Your task to perform on an android device: see creations saved in the google photos Image 0: 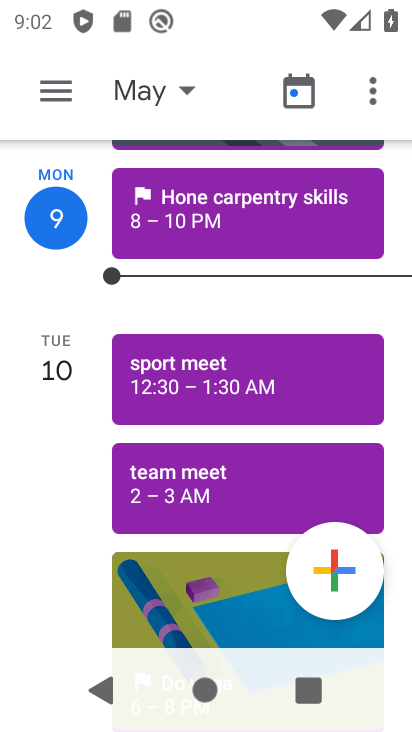
Step 0: press home button
Your task to perform on an android device: see creations saved in the google photos Image 1: 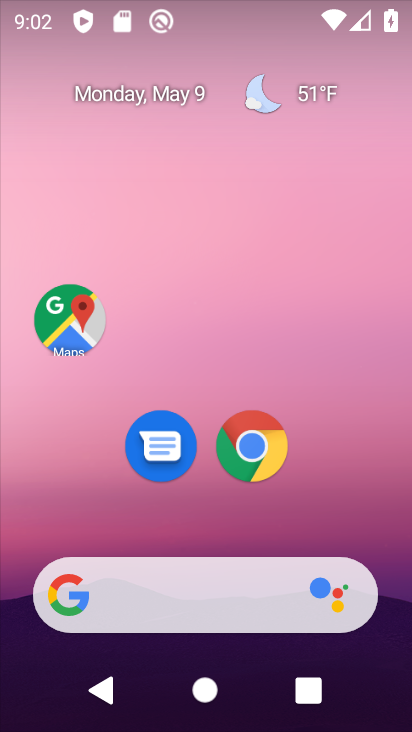
Step 1: drag from (288, 532) to (277, 0)
Your task to perform on an android device: see creations saved in the google photos Image 2: 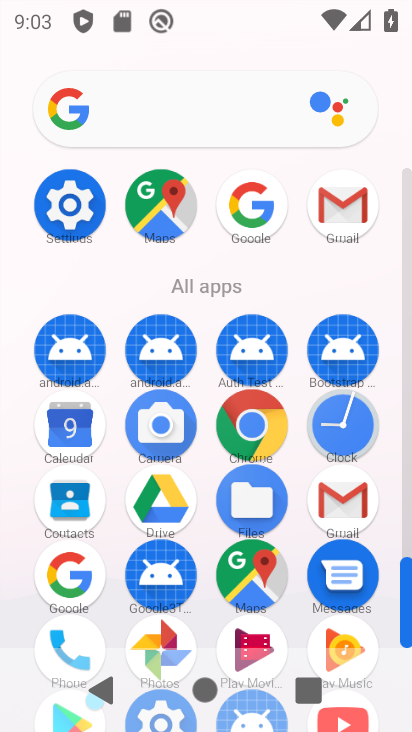
Step 2: click (169, 634)
Your task to perform on an android device: see creations saved in the google photos Image 3: 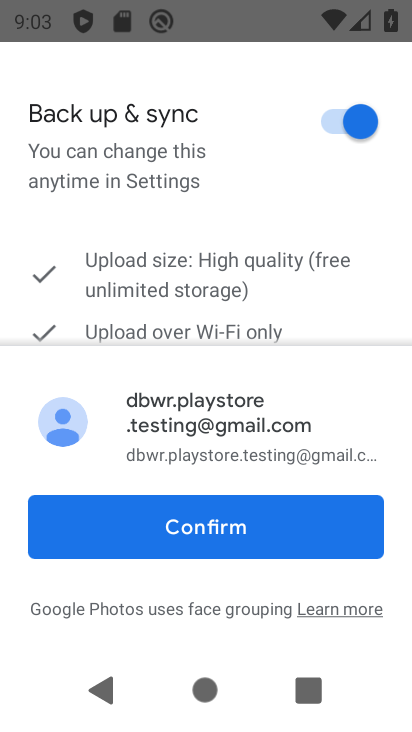
Step 3: click (213, 527)
Your task to perform on an android device: see creations saved in the google photos Image 4: 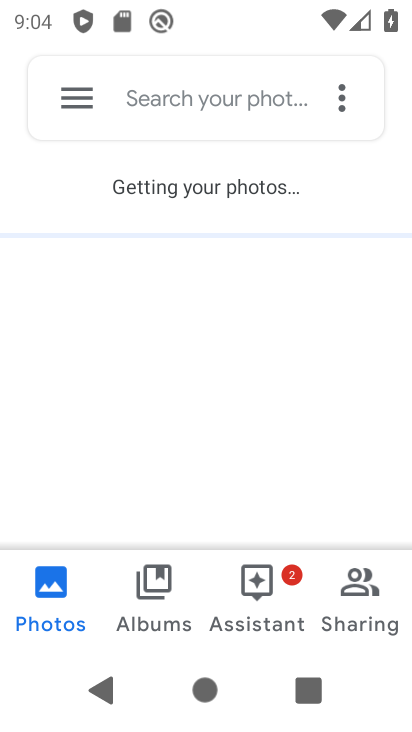
Step 4: click (80, 89)
Your task to perform on an android device: see creations saved in the google photos Image 5: 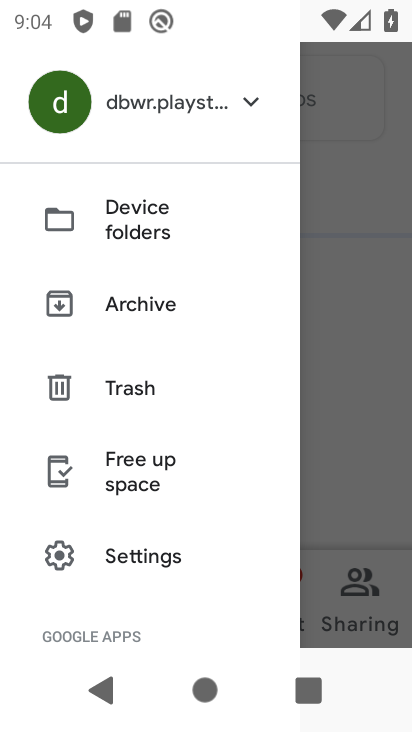
Step 5: click (369, 280)
Your task to perform on an android device: see creations saved in the google photos Image 6: 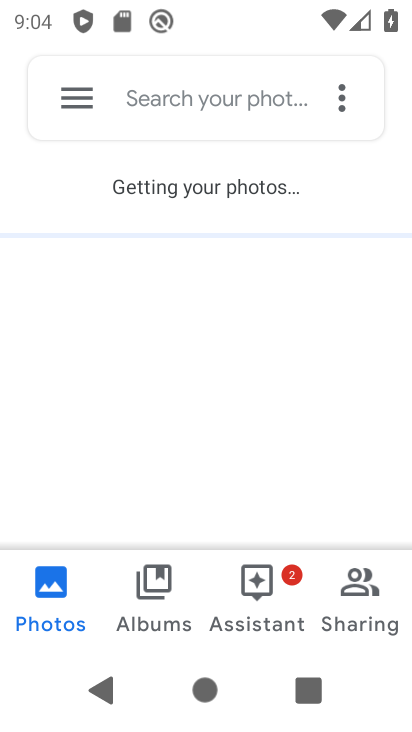
Step 6: click (200, 90)
Your task to perform on an android device: see creations saved in the google photos Image 7: 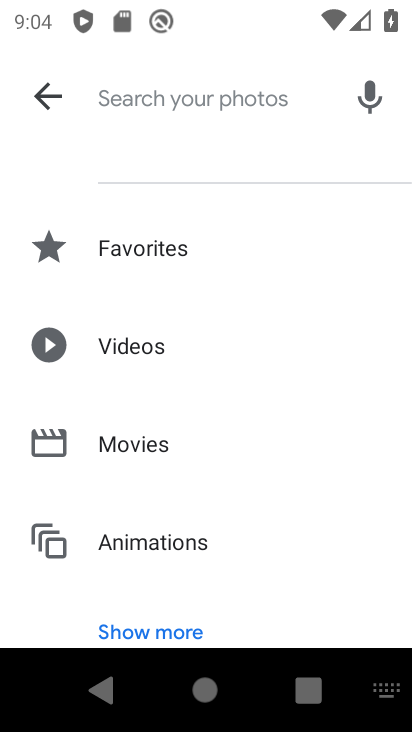
Step 7: click (200, 90)
Your task to perform on an android device: see creations saved in the google photos Image 8: 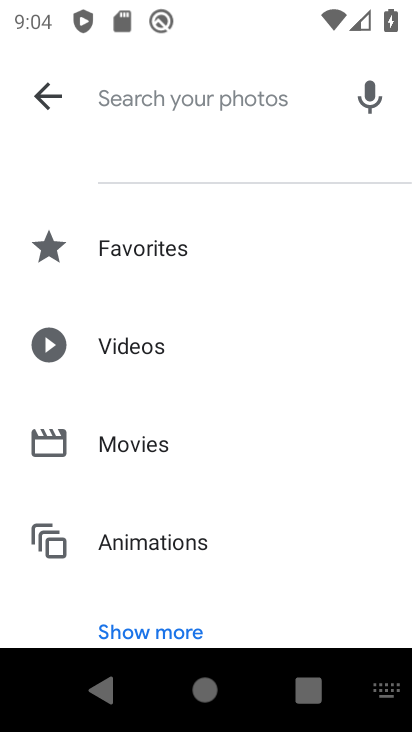
Step 8: type "creations"
Your task to perform on an android device: see creations saved in the google photos Image 9: 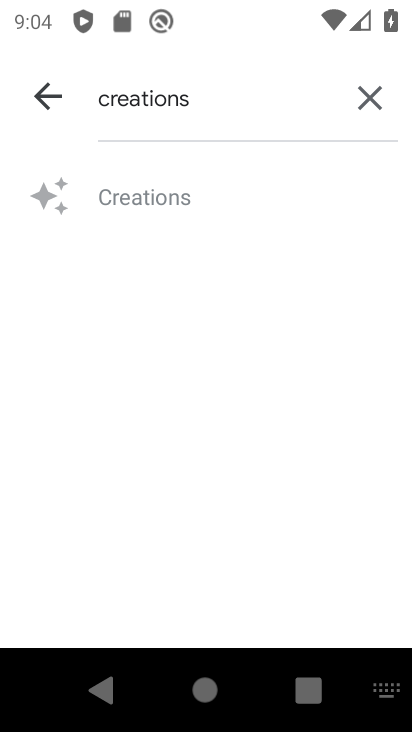
Step 9: click (188, 196)
Your task to perform on an android device: see creations saved in the google photos Image 10: 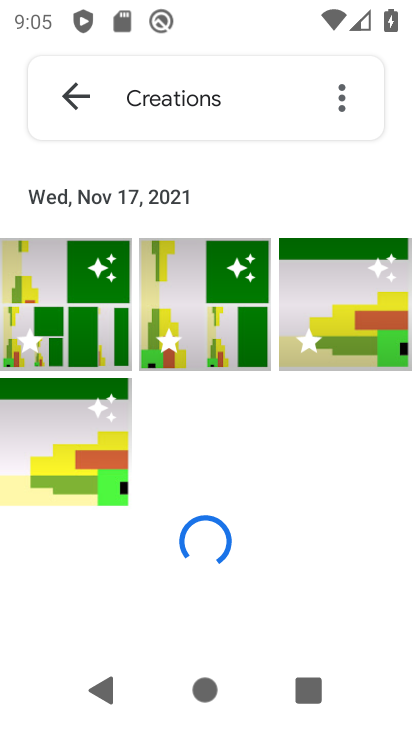
Step 10: task complete